Your task to perform on an android device: Open Youtube and go to the subscriptions tab Image 0: 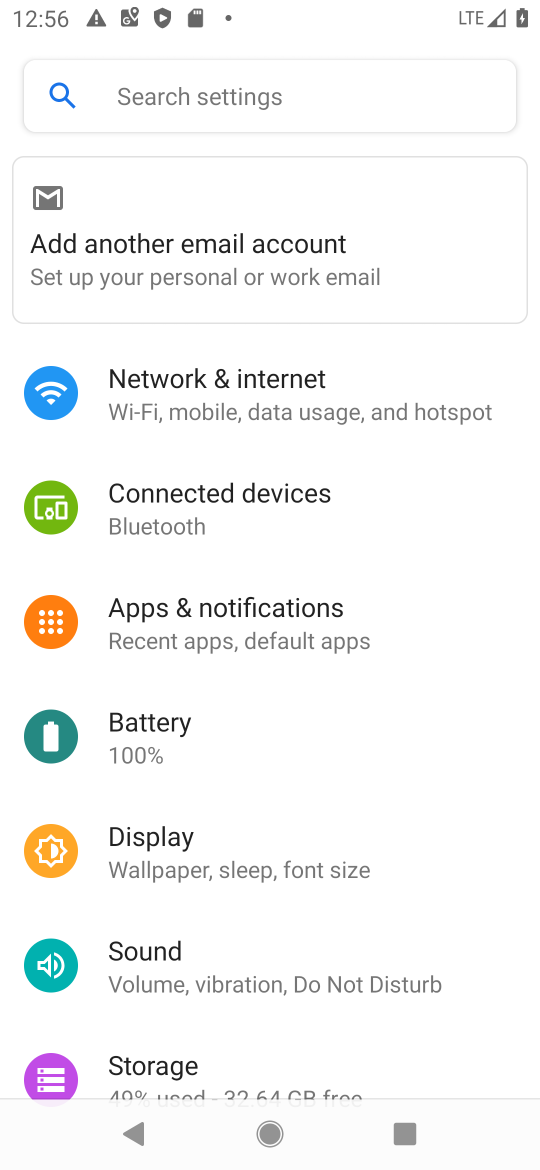
Step 0: press home button
Your task to perform on an android device: Open Youtube and go to the subscriptions tab Image 1: 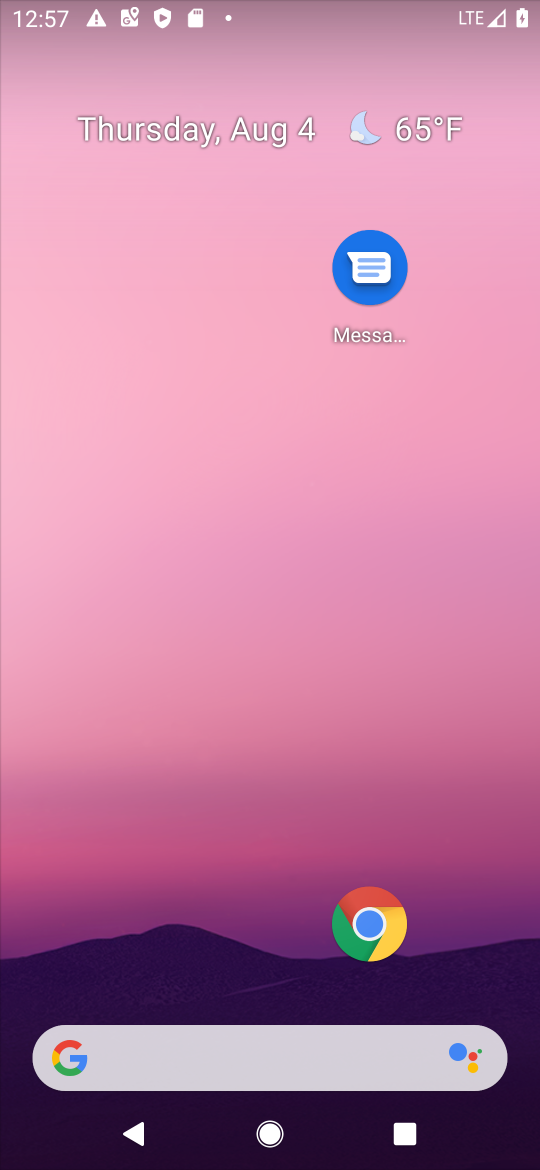
Step 1: drag from (29, 1120) to (365, 190)
Your task to perform on an android device: Open Youtube and go to the subscriptions tab Image 2: 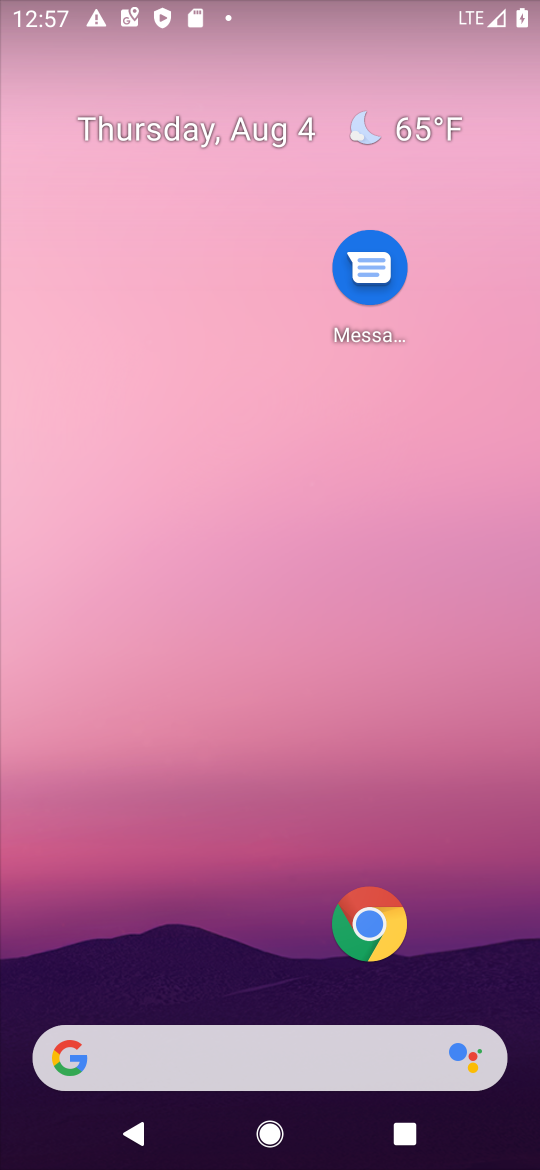
Step 2: drag from (40, 1125) to (312, 201)
Your task to perform on an android device: Open Youtube and go to the subscriptions tab Image 3: 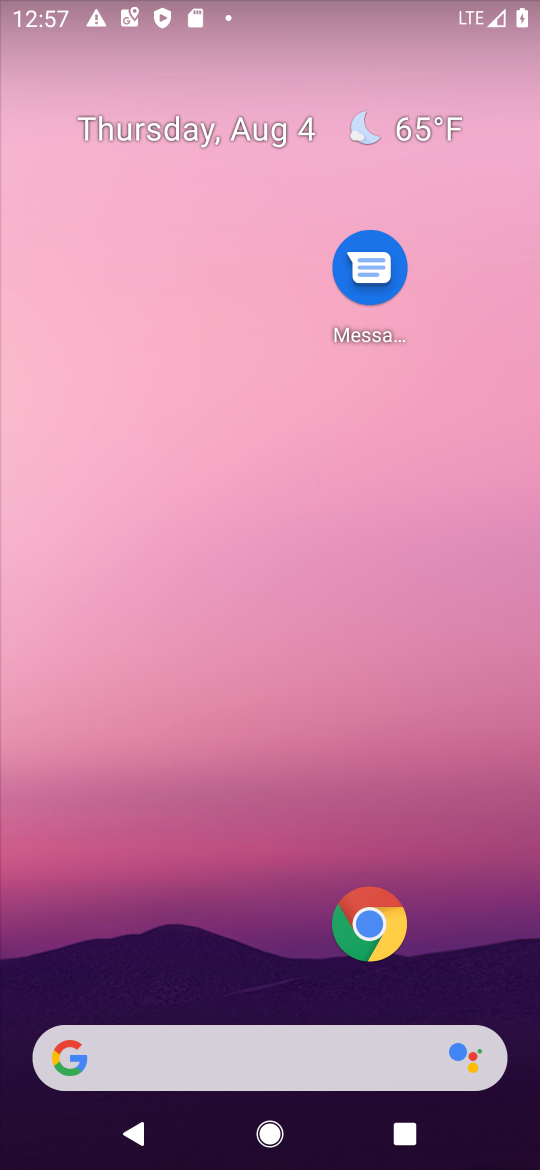
Step 3: drag from (59, 1133) to (312, 185)
Your task to perform on an android device: Open Youtube and go to the subscriptions tab Image 4: 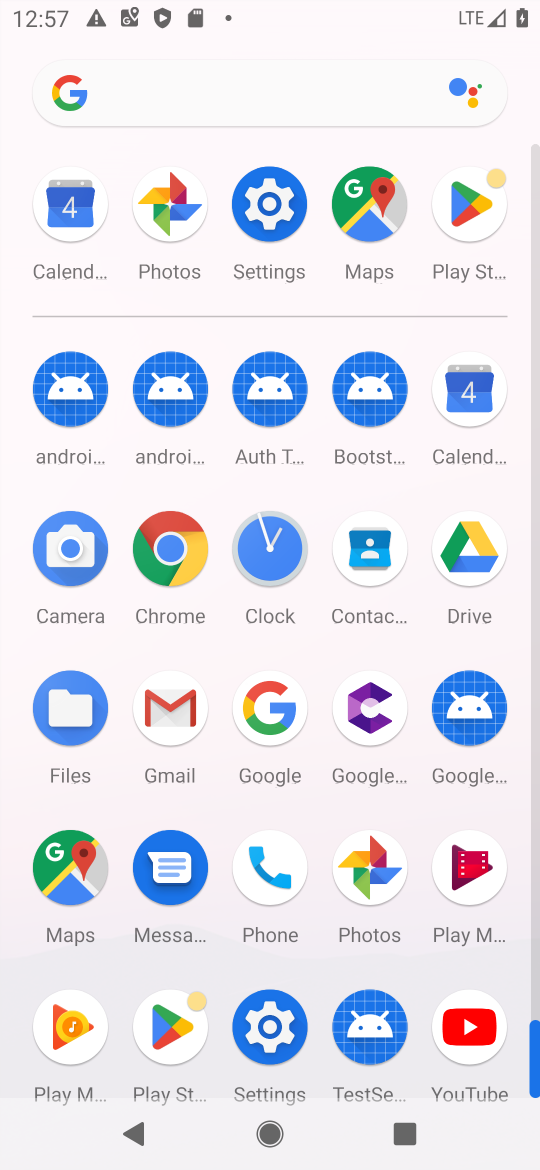
Step 4: click (458, 1032)
Your task to perform on an android device: Open Youtube and go to the subscriptions tab Image 5: 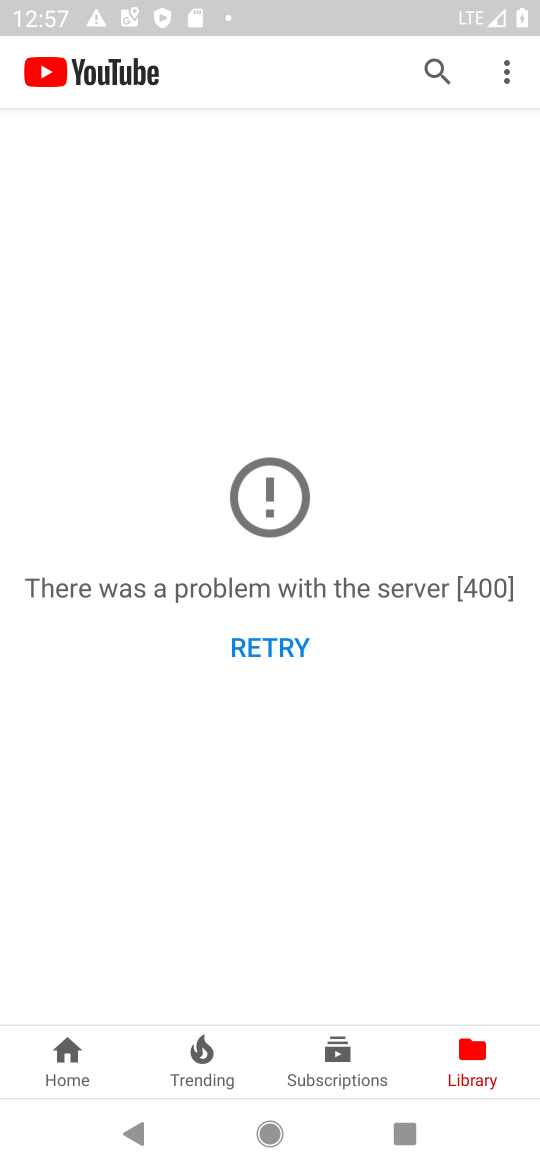
Step 5: click (347, 1050)
Your task to perform on an android device: Open Youtube and go to the subscriptions tab Image 6: 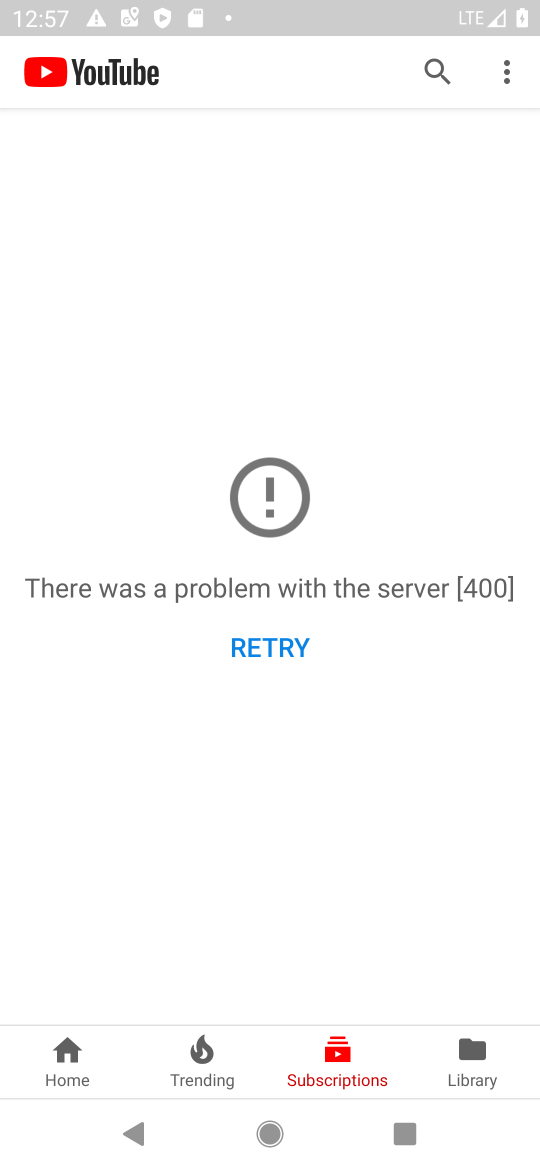
Step 6: task complete